Your task to perform on an android device: turn off smart reply in the gmail app Image 0: 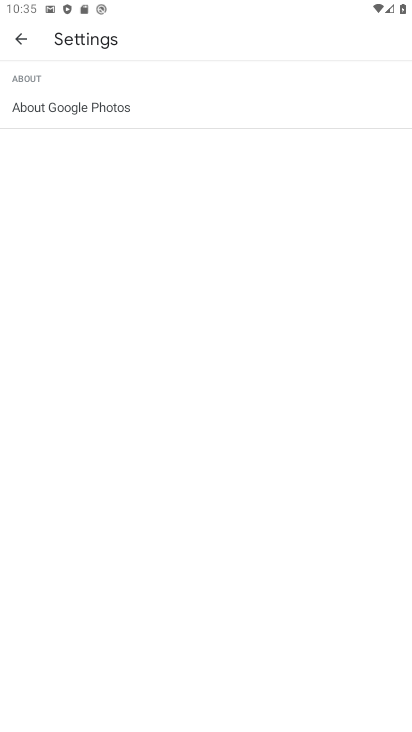
Step 0: press home button
Your task to perform on an android device: turn off smart reply in the gmail app Image 1: 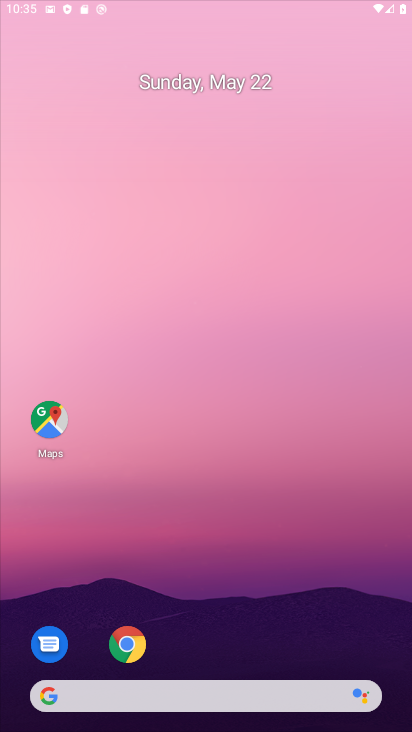
Step 1: drag from (364, 649) to (380, 573)
Your task to perform on an android device: turn off smart reply in the gmail app Image 2: 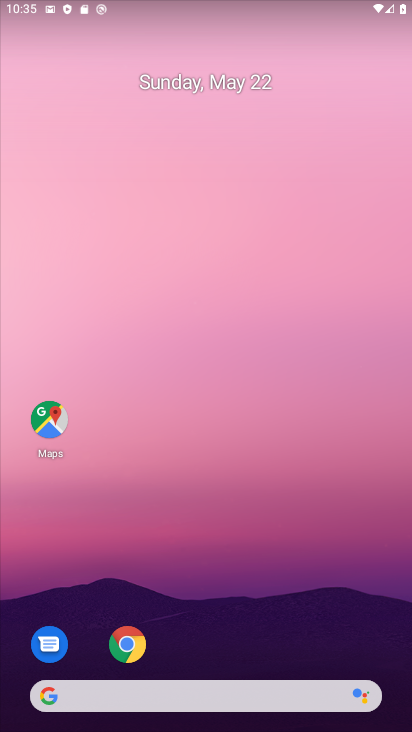
Step 2: click (141, 524)
Your task to perform on an android device: turn off smart reply in the gmail app Image 3: 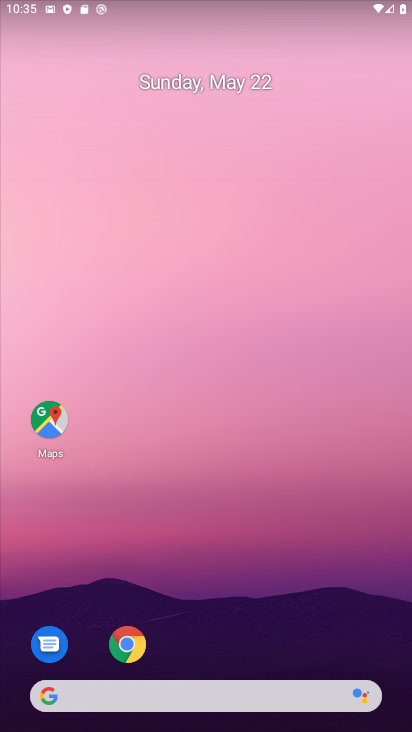
Step 3: drag from (323, 610) to (270, 9)
Your task to perform on an android device: turn off smart reply in the gmail app Image 4: 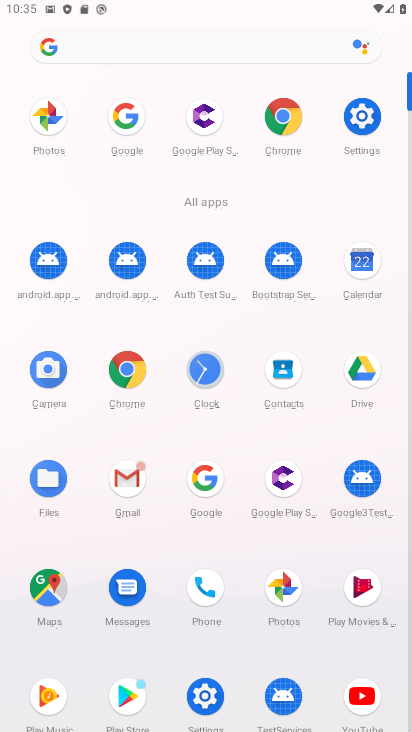
Step 4: click (130, 463)
Your task to perform on an android device: turn off smart reply in the gmail app Image 5: 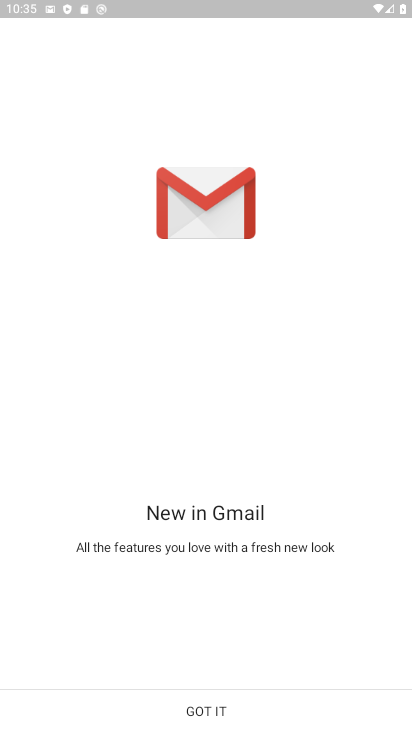
Step 5: click (197, 718)
Your task to perform on an android device: turn off smart reply in the gmail app Image 6: 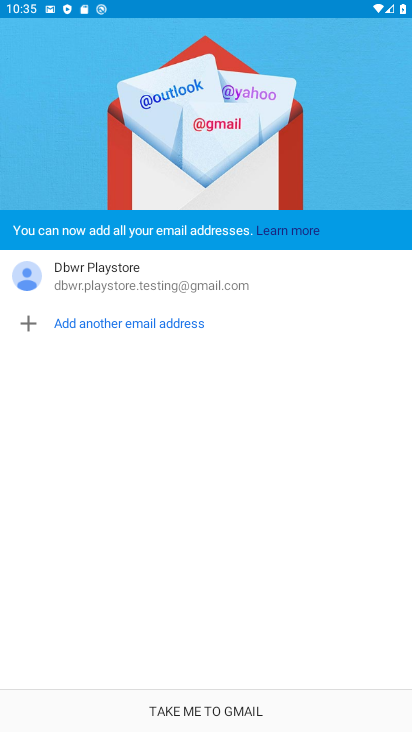
Step 6: click (197, 718)
Your task to perform on an android device: turn off smart reply in the gmail app Image 7: 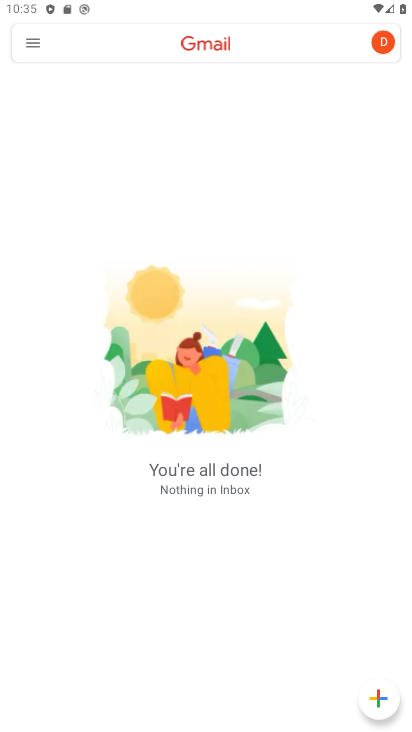
Step 7: click (25, 54)
Your task to perform on an android device: turn off smart reply in the gmail app Image 8: 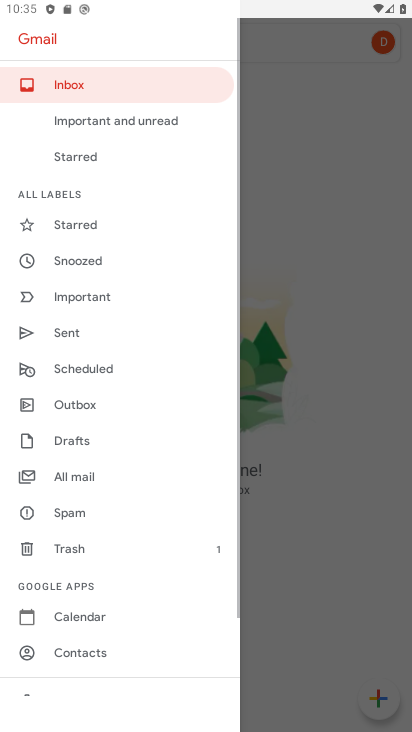
Step 8: drag from (102, 652) to (165, 98)
Your task to perform on an android device: turn off smart reply in the gmail app Image 9: 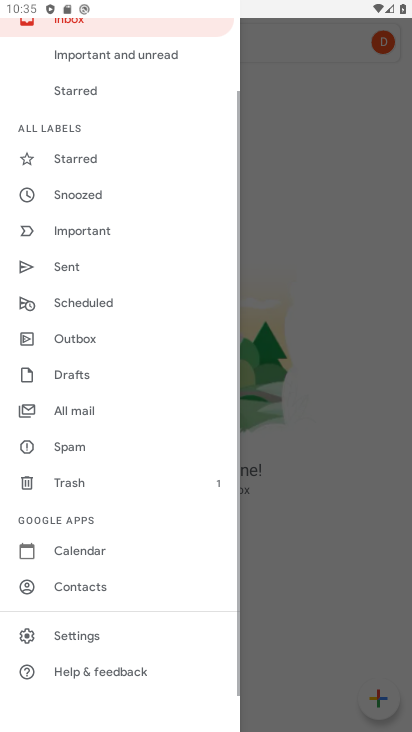
Step 9: click (118, 639)
Your task to perform on an android device: turn off smart reply in the gmail app Image 10: 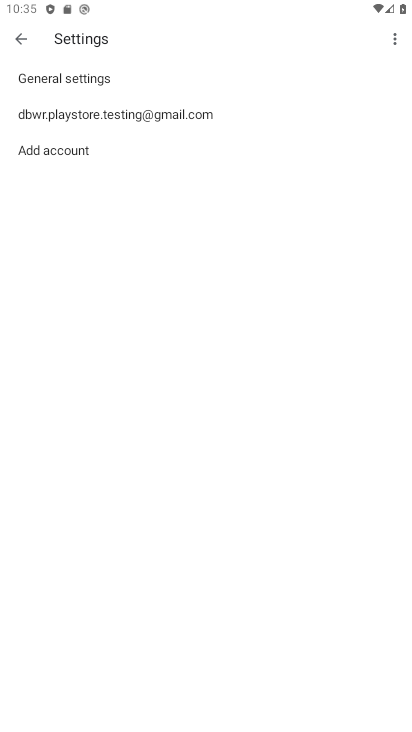
Step 10: drag from (118, 639) to (214, 203)
Your task to perform on an android device: turn off smart reply in the gmail app Image 11: 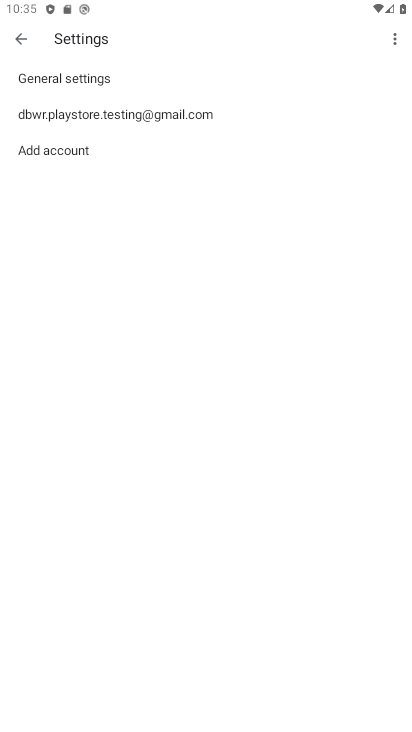
Step 11: click (209, 120)
Your task to perform on an android device: turn off smart reply in the gmail app Image 12: 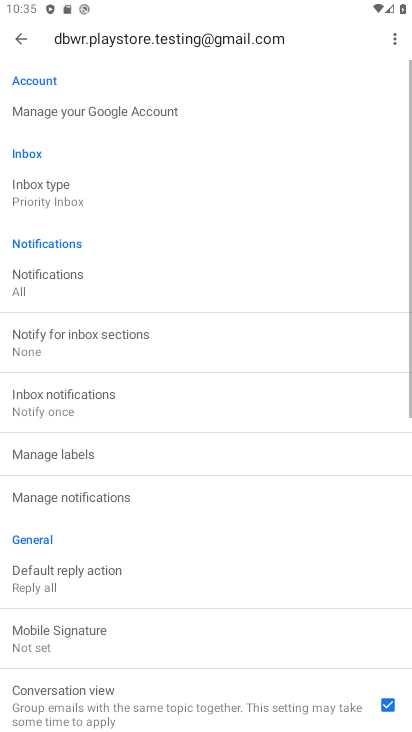
Step 12: drag from (209, 671) to (276, 163)
Your task to perform on an android device: turn off smart reply in the gmail app Image 13: 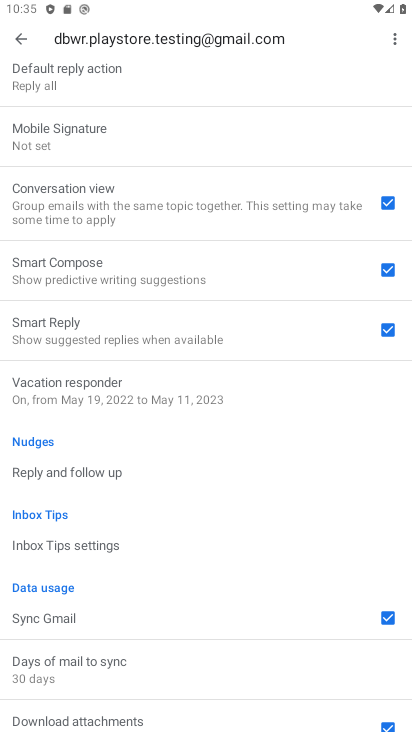
Step 13: click (298, 324)
Your task to perform on an android device: turn off smart reply in the gmail app Image 14: 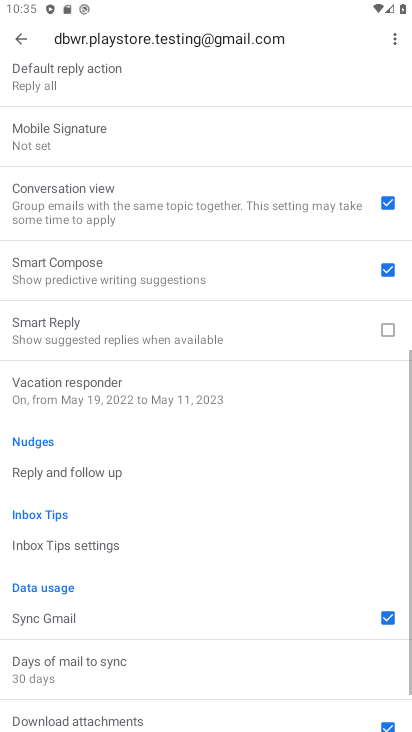
Step 14: task complete